Your task to perform on an android device: delete a single message in the gmail app Image 0: 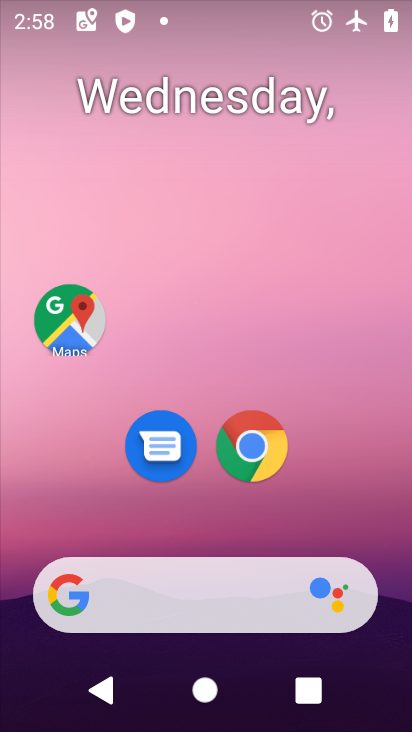
Step 0: drag from (212, 528) to (240, 277)
Your task to perform on an android device: delete a single message in the gmail app Image 1: 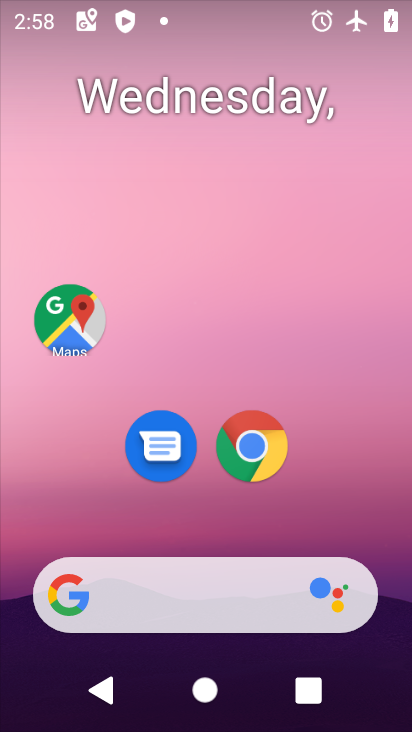
Step 1: drag from (205, 533) to (232, 164)
Your task to perform on an android device: delete a single message in the gmail app Image 2: 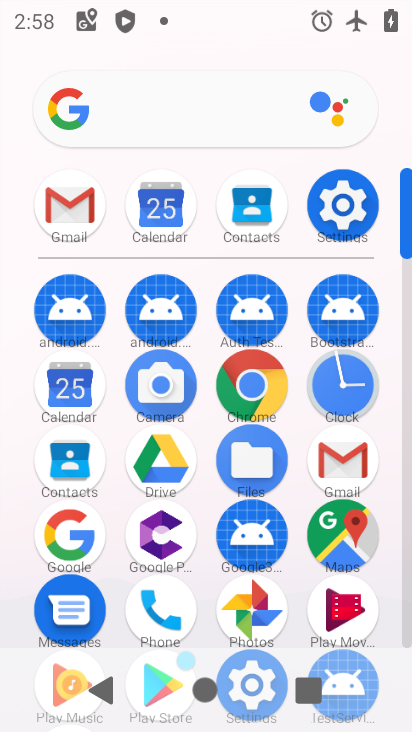
Step 2: click (327, 448)
Your task to perform on an android device: delete a single message in the gmail app Image 3: 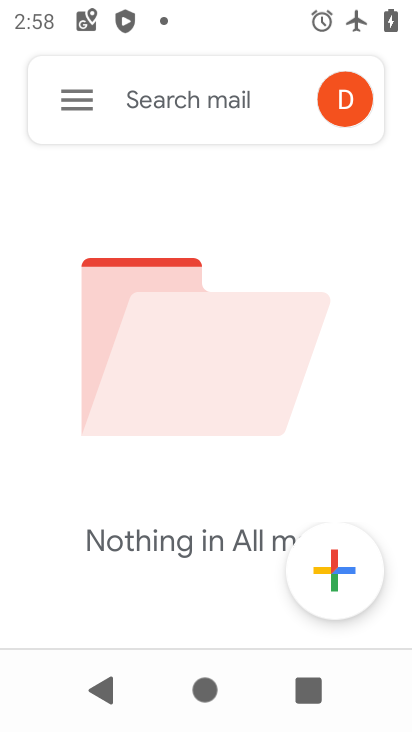
Step 3: click (86, 108)
Your task to perform on an android device: delete a single message in the gmail app Image 4: 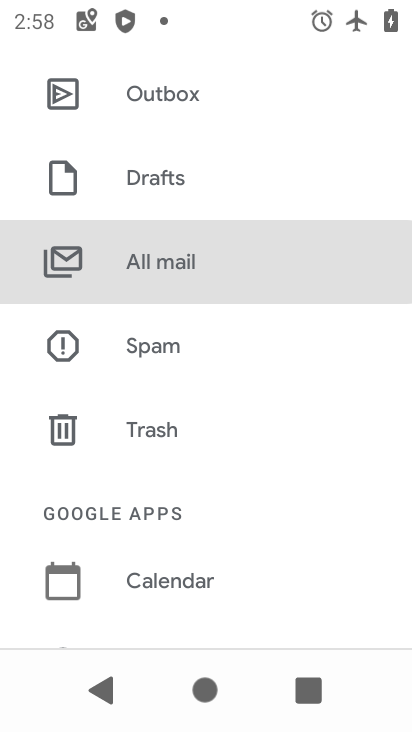
Step 4: click (175, 250)
Your task to perform on an android device: delete a single message in the gmail app Image 5: 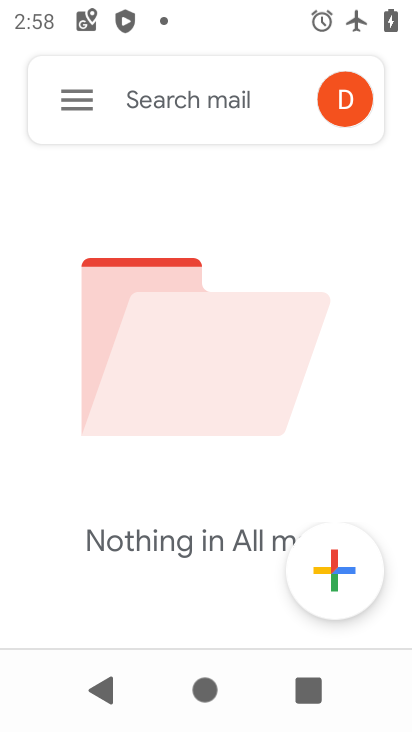
Step 5: task complete